Your task to perform on an android device: Go to CNN.com Image 0: 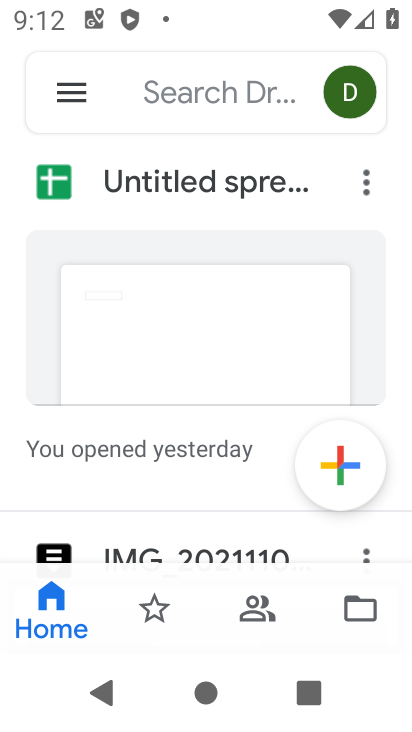
Step 0: press home button
Your task to perform on an android device: Go to CNN.com Image 1: 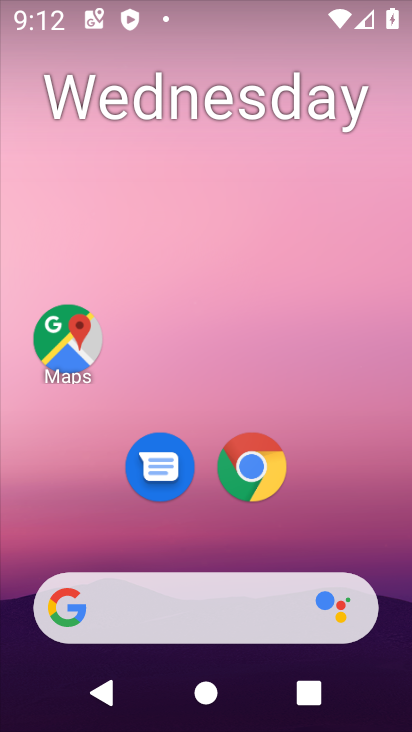
Step 1: click (259, 463)
Your task to perform on an android device: Go to CNN.com Image 2: 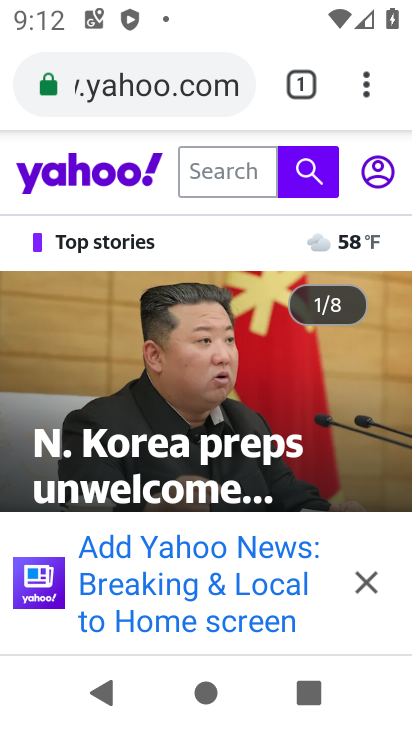
Step 2: click (311, 86)
Your task to perform on an android device: Go to CNN.com Image 3: 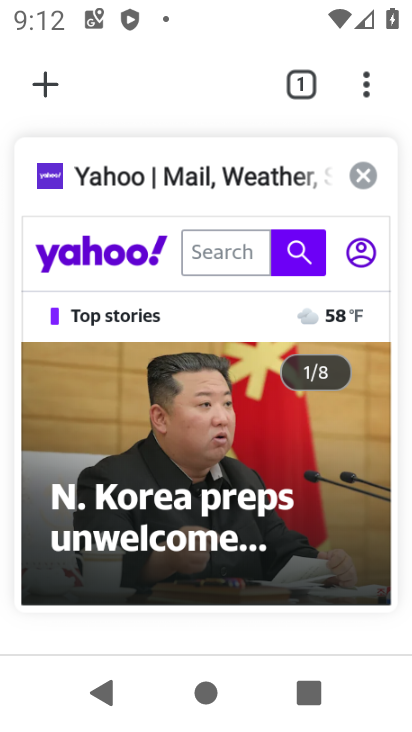
Step 3: click (166, 197)
Your task to perform on an android device: Go to CNN.com Image 4: 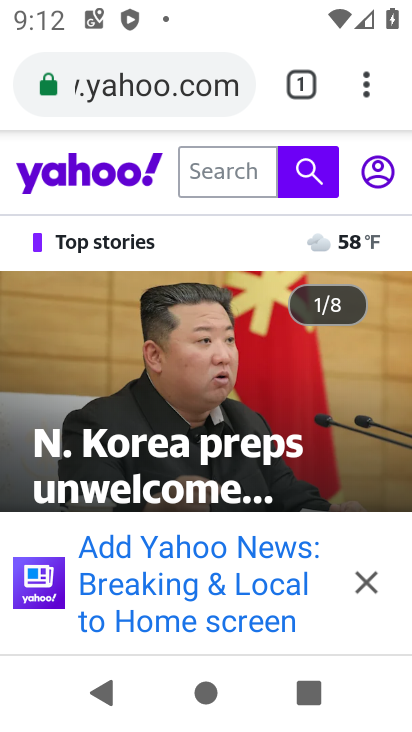
Step 4: click (179, 79)
Your task to perform on an android device: Go to CNN.com Image 5: 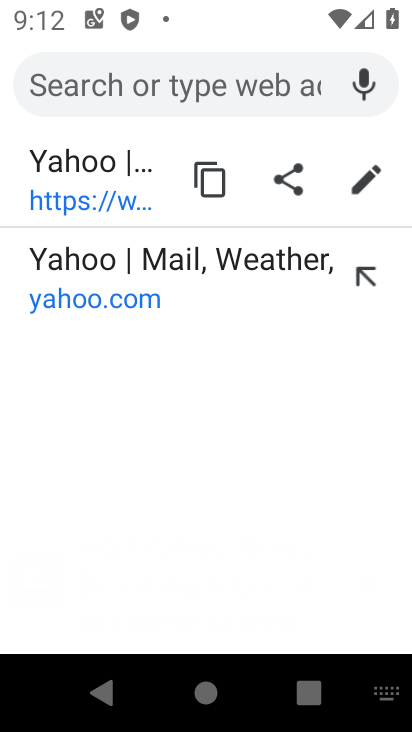
Step 5: type "CNN.com"
Your task to perform on an android device: Go to CNN.com Image 6: 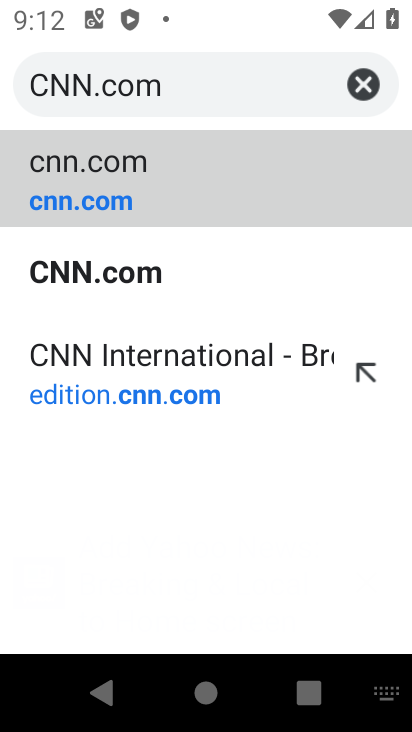
Step 6: click (193, 184)
Your task to perform on an android device: Go to CNN.com Image 7: 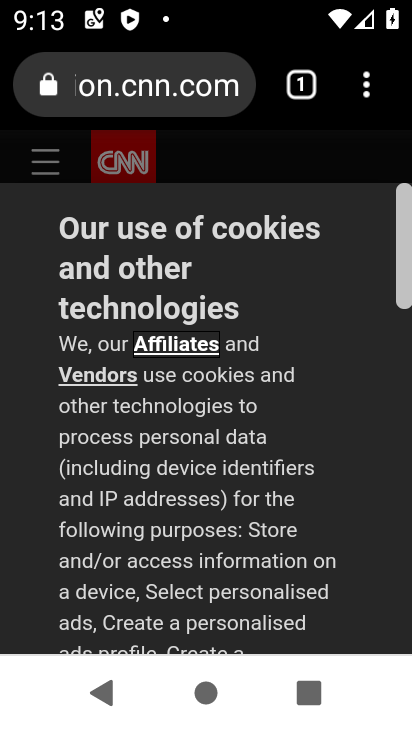
Step 7: task complete